Your task to perform on an android device: turn off data saver in the chrome app Image 0: 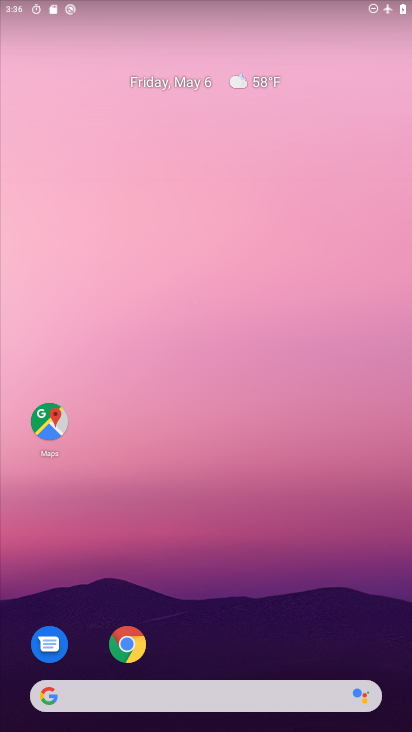
Step 0: click (128, 646)
Your task to perform on an android device: turn off data saver in the chrome app Image 1: 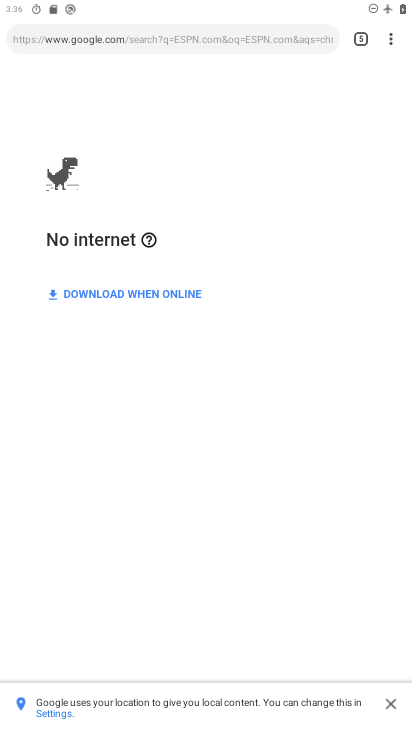
Step 1: drag from (390, 35) to (272, 432)
Your task to perform on an android device: turn off data saver in the chrome app Image 2: 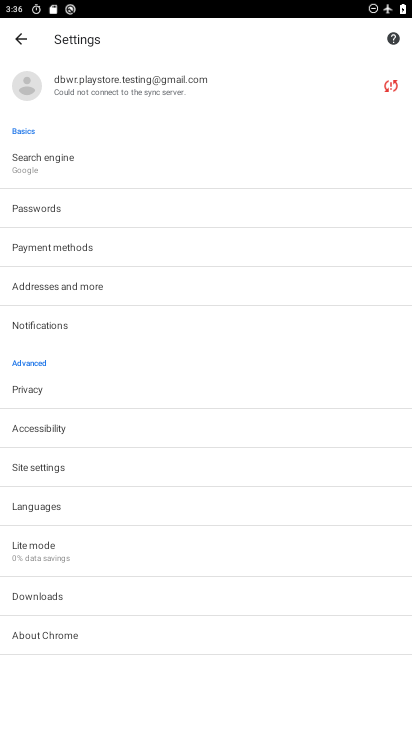
Step 2: click (41, 545)
Your task to perform on an android device: turn off data saver in the chrome app Image 3: 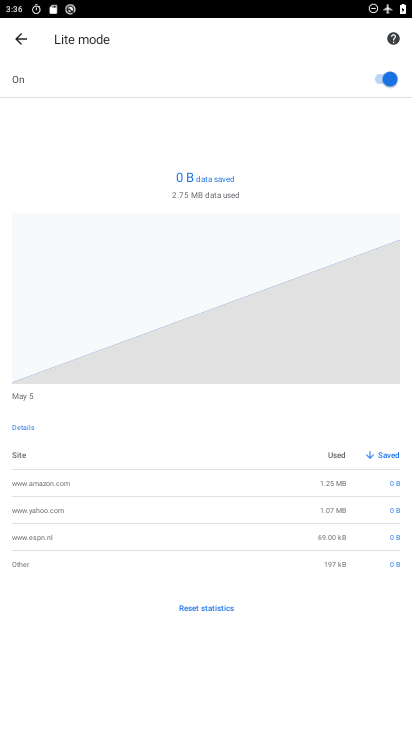
Step 3: click (376, 82)
Your task to perform on an android device: turn off data saver in the chrome app Image 4: 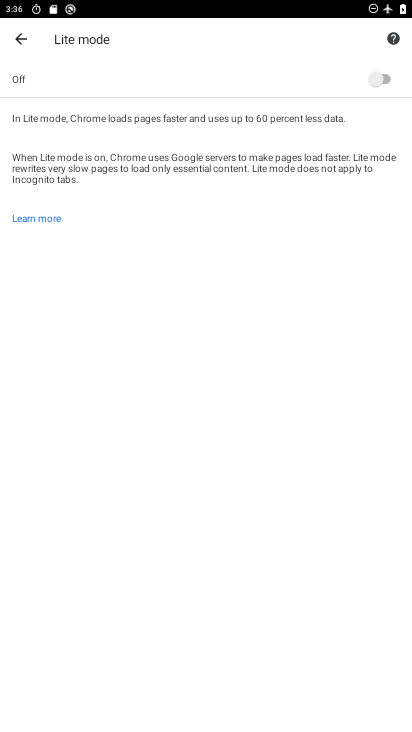
Step 4: task complete